Your task to perform on an android device: Check the weather Image 0: 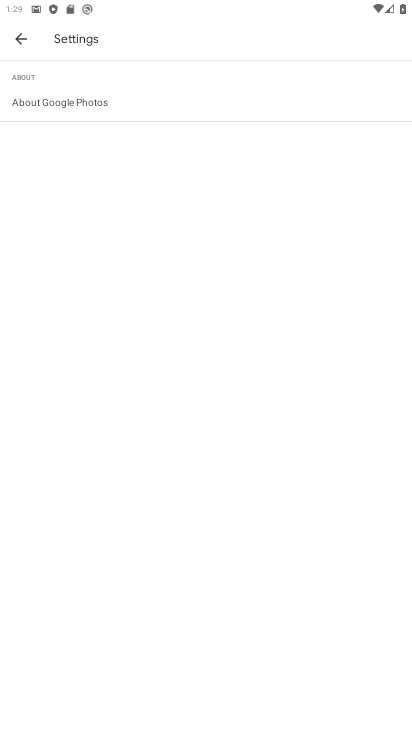
Step 0: press back button
Your task to perform on an android device: Check the weather Image 1: 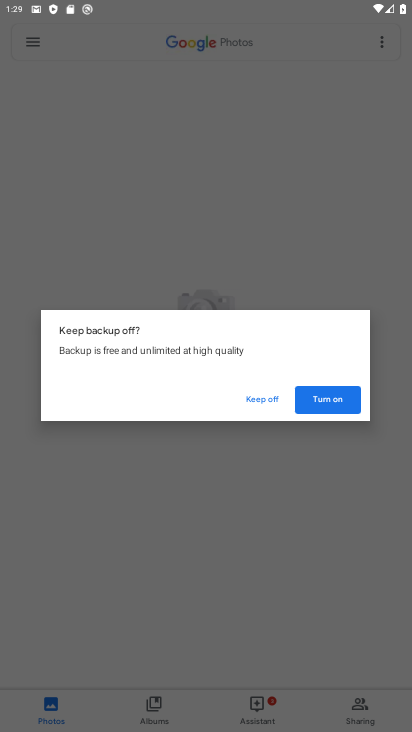
Step 1: press back button
Your task to perform on an android device: Check the weather Image 2: 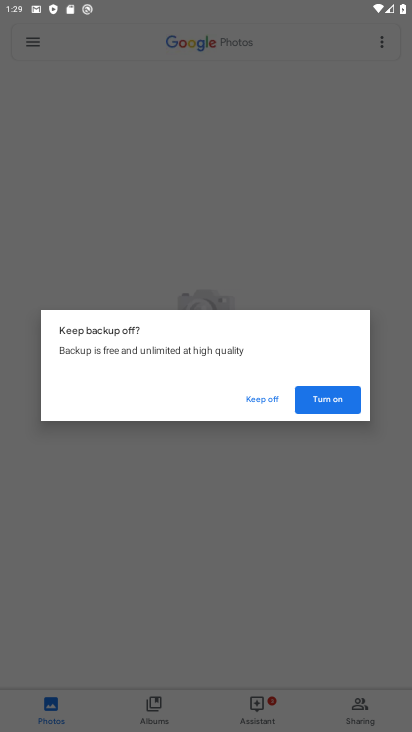
Step 2: press back button
Your task to perform on an android device: Check the weather Image 3: 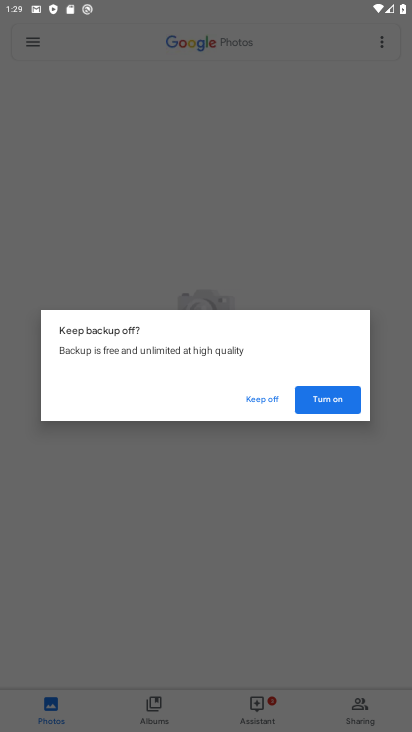
Step 3: press home button
Your task to perform on an android device: Check the weather Image 4: 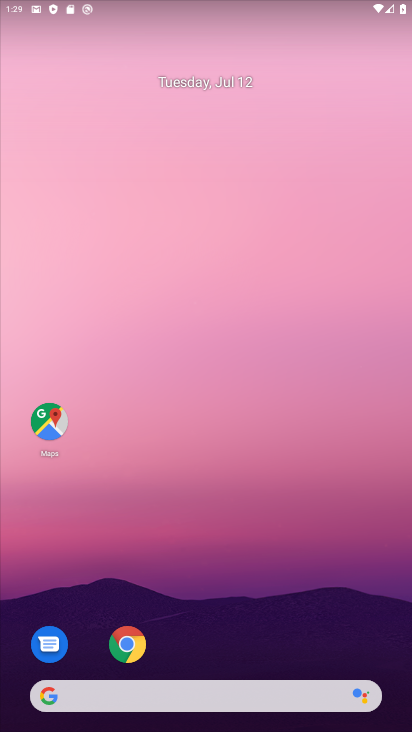
Step 4: click (138, 687)
Your task to perform on an android device: Check the weather Image 5: 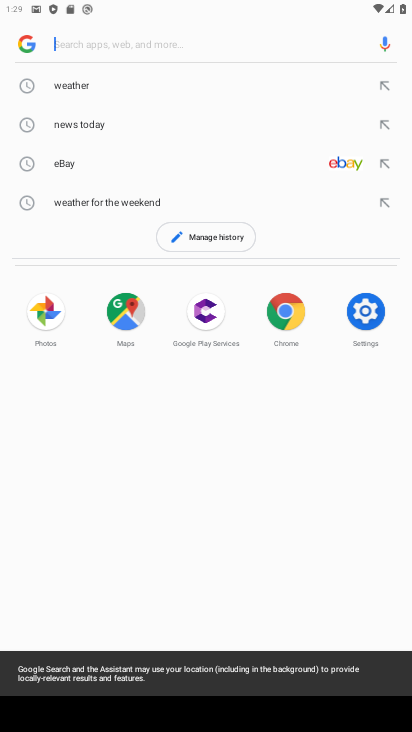
Step 5: click (58, 82)
Your task to perform on an android device: Check the weather Image 6: 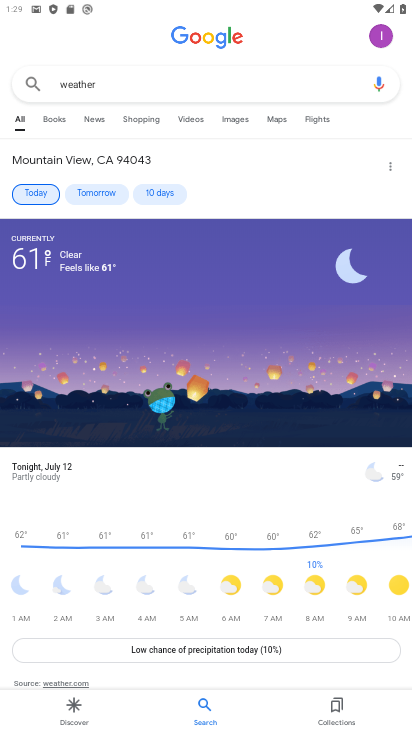
Step 6: task complete